Your task to perform on an android device: read, delete, or share a saved page in the chrome app Image 0: 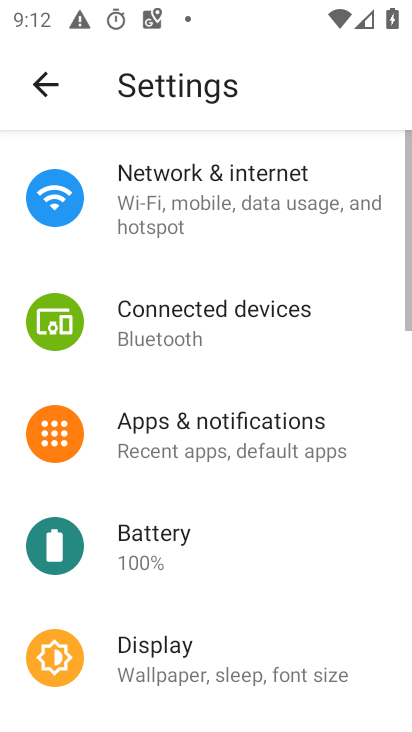
Step 0: press home button
Your task to perform on an android device: read, delete, or share a saved page in the chrome app Image 1: 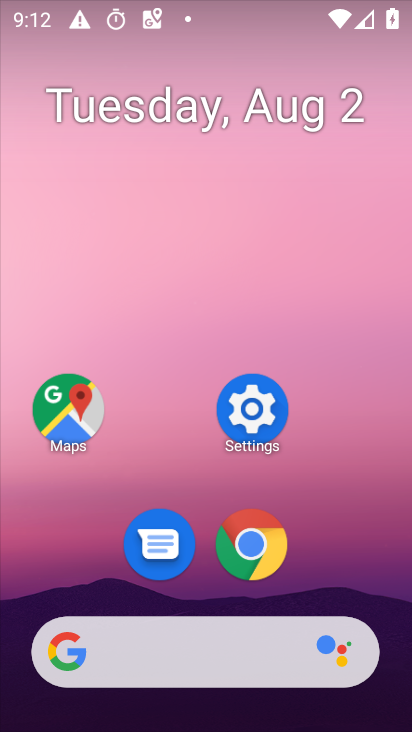
Step 1: click (258, 549)
Your task to perform on an android device: read, delete, or share a saved page in the chrome app Image 2: 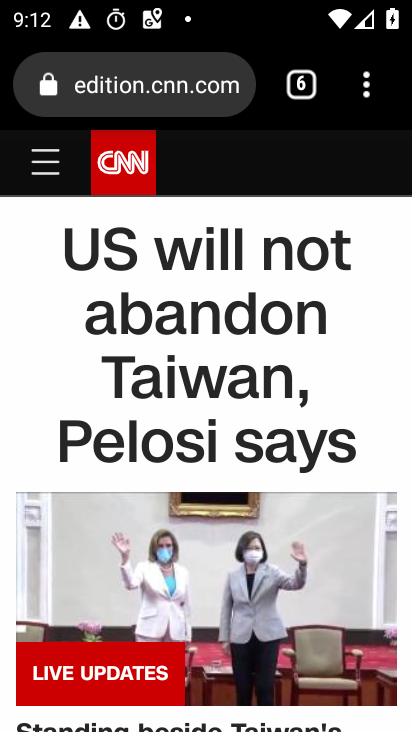
Step 2: drag from (364, 87) to (150, 559)
Your task to perform on an android device: read, delete, or share a saved page in the chrome app Image 3: 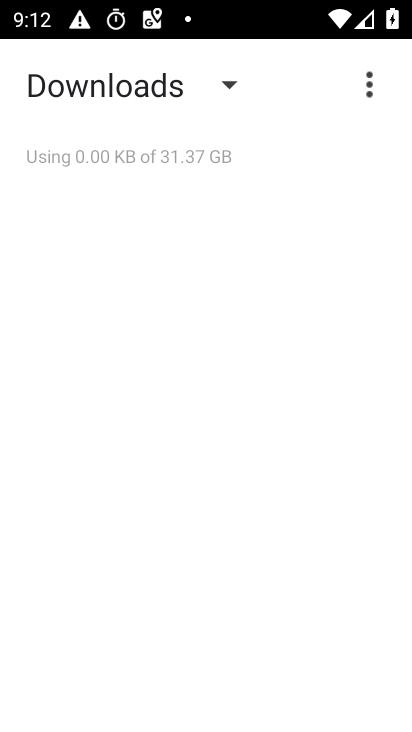
Step 3: click (218, 84)
Your task to perform on an android device: read, delete, or share a saved page in the chrome app Image 4: 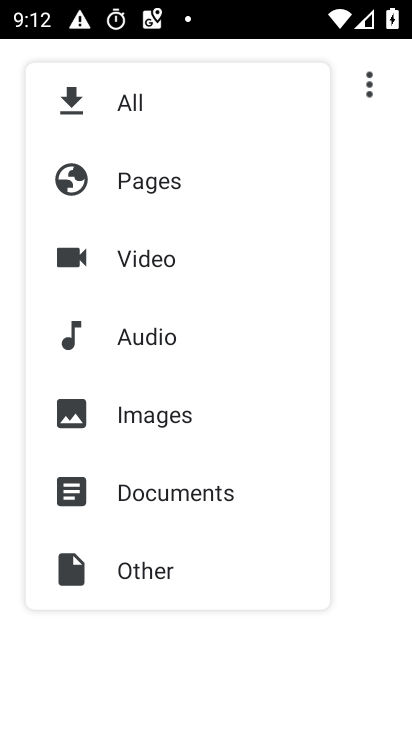
Step 4: click (158, 186)
Your task to perform on an android device: read, delete, or share a saved page in the chrome app Image 5: 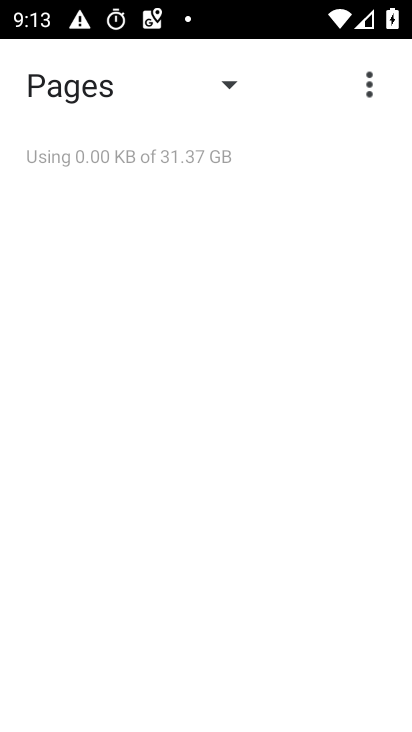
Step 5: task complete